Your task to perform on an android device: Open CNN.com Image 0: 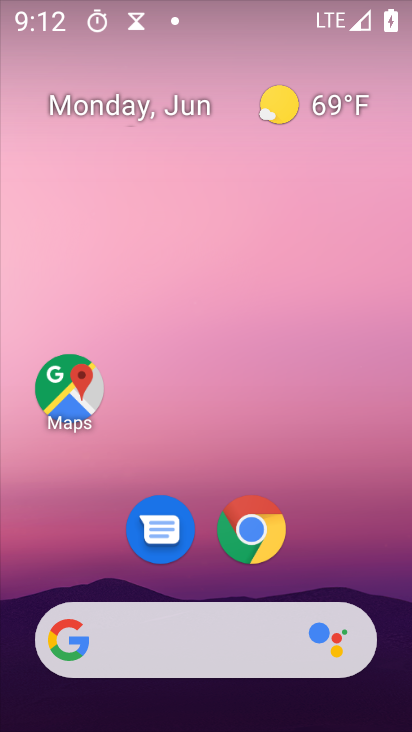
Step 0: click (251, 527)
Your task to perform on an android device: Open CNN.com Image 1: 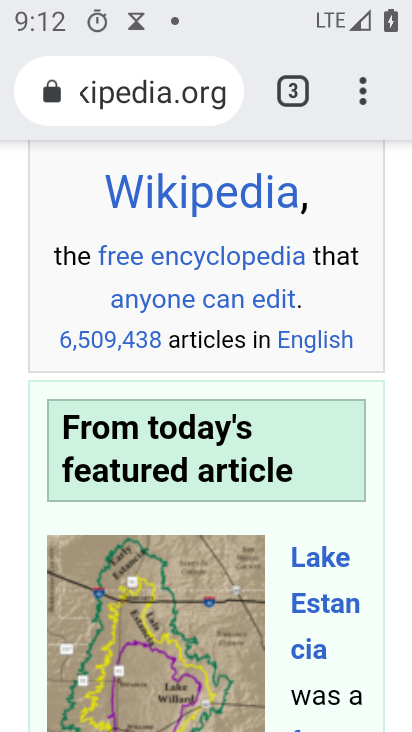
Step 1: click (297, 92)
Your task to perform on an android device: Open CNN.com Image 2: 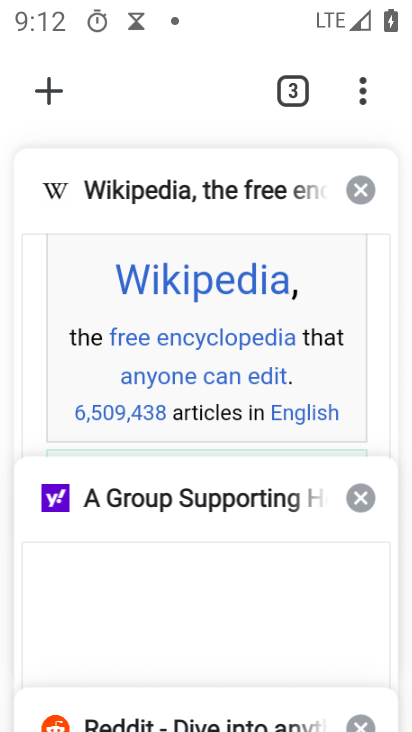
Step 2: click (47, 83)
Your task to perform on an android device: Open CNN.com Image 3: 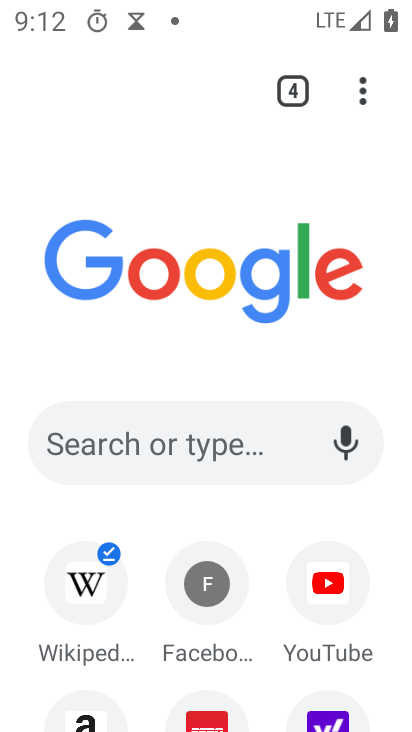
Step 3: drag from (204, 690) to (211, 203)
Your task to perform on an android device: Open CNN.com Image 4: 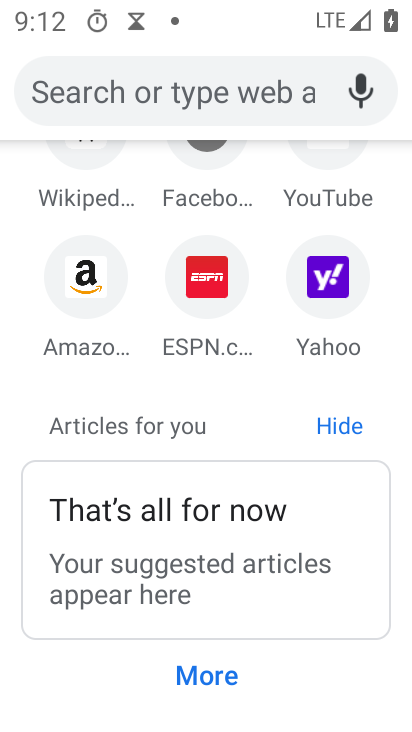
Step 4: drag from (222, 229) to (261, 709)
Your task to perform on an android device: Open CNN.com Image 5: 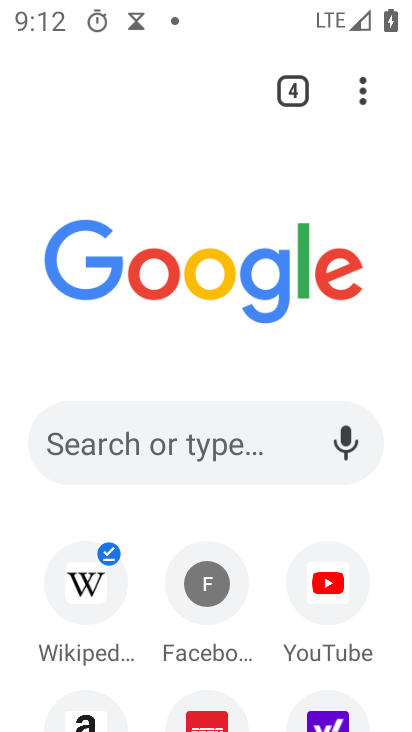
Step 5: click (205, 452)
Your task to perform on an android device: Open CNN.com Image 6: 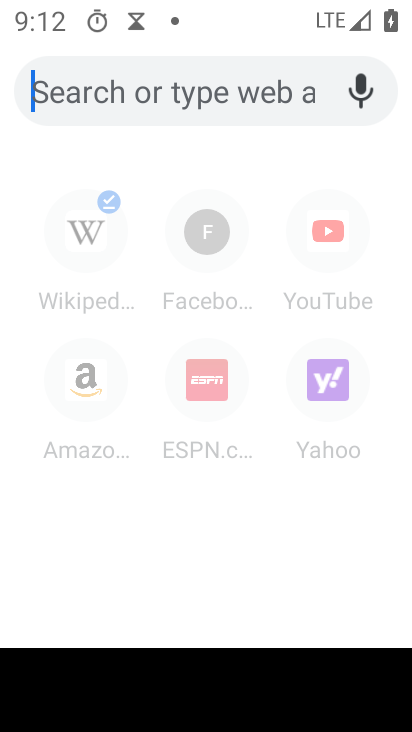
Step 6: type "CNN.com"
Your task to perform on an android device: Open CNN.com Image 7: 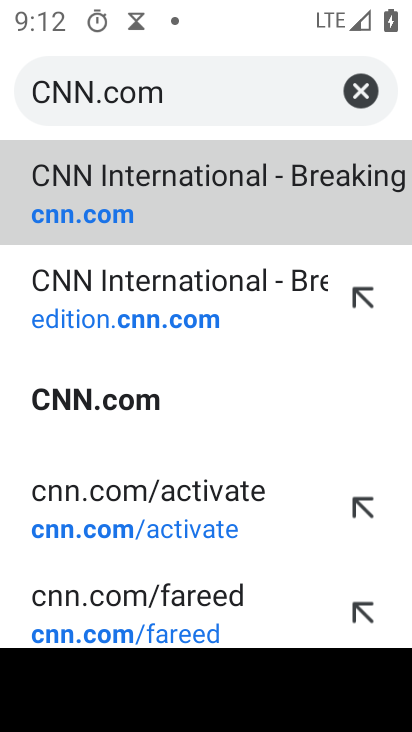
Step 7: click (198, 181)
Your task to perform on an android device: Open CNN.com Image 8: 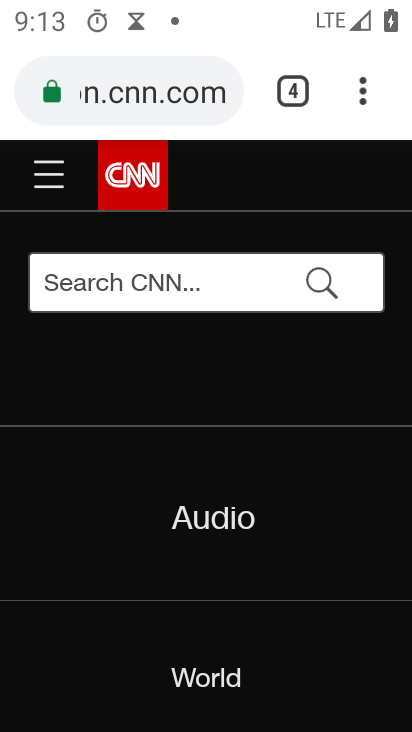
Step 8: task complete